Your task to perform on an android device: Open internet settings Image 0: 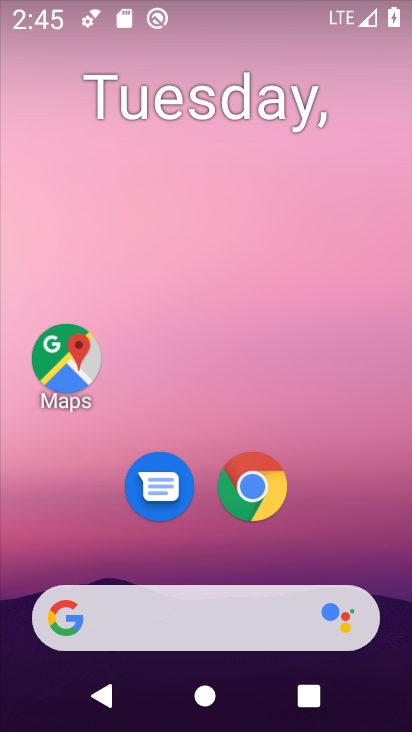
Step 0: press home button
Your task to perform on an android device: Open internet settings Image 1: 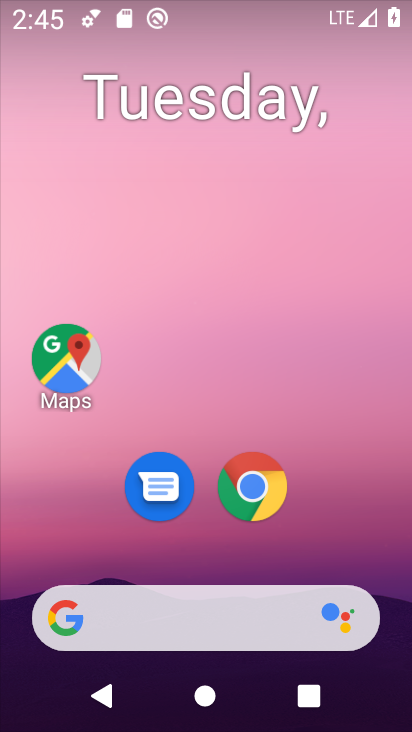
Step 1: drag from (369, 536) to (353, 116)
Your task to perform on an android device: Open internet settings Image 2: 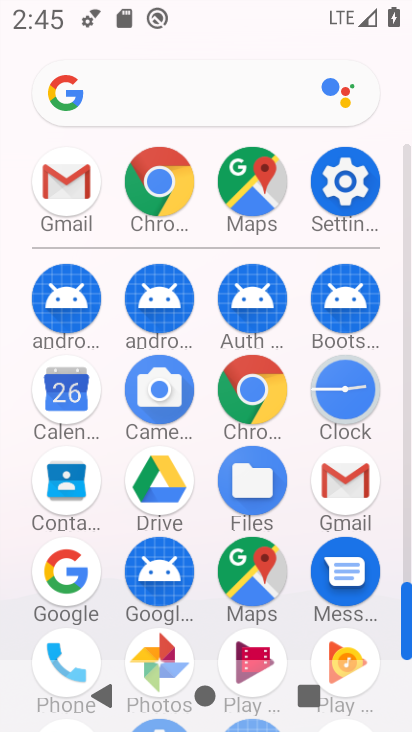
Step 2: click (350, 188)
Your task to perform on an android device: Open internet settings Image 3: 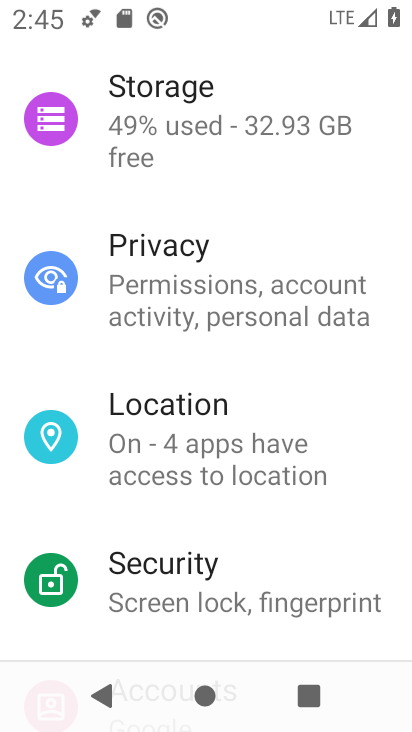
Step 3: drag from (337, 502) to (333, 349)
Your task to perform on an android device: Open internet settings Image 4: 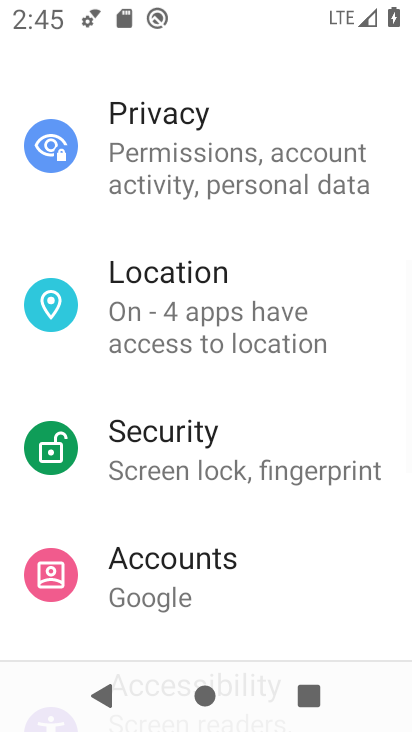
Step 4: drag from (335, 527) to (335, 398)
Your task to perform on an android device: Open internet settings Image 5: 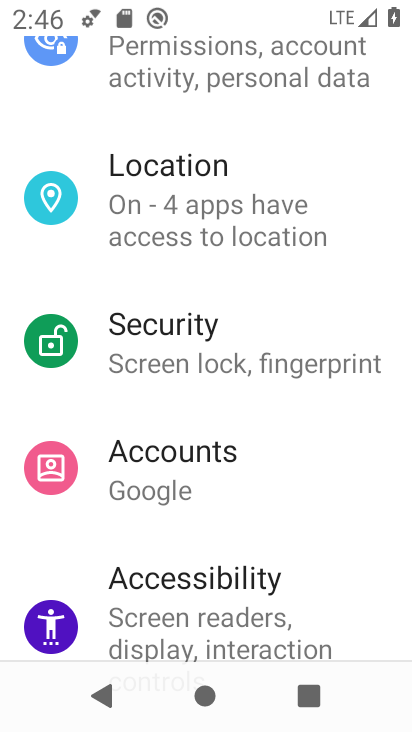
Step 5: drag from (331, 554) to (331, 456)
Your task to perform on an android device: Open internet settings Image 6: 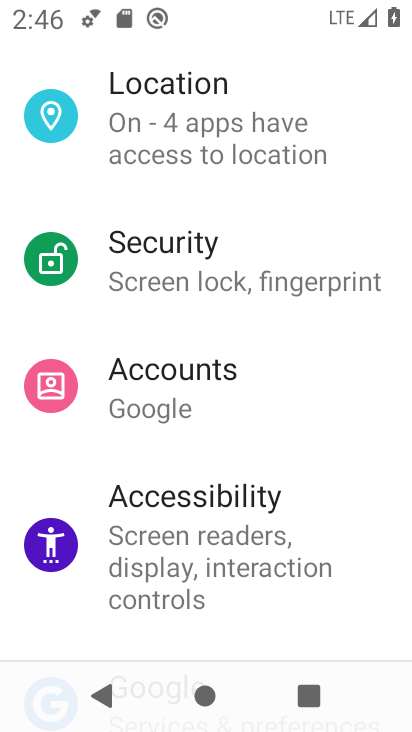
Step 6: drag from (331, 577) to (332, 482)
Your task to perform on an android device: Open internet settings Image 7: 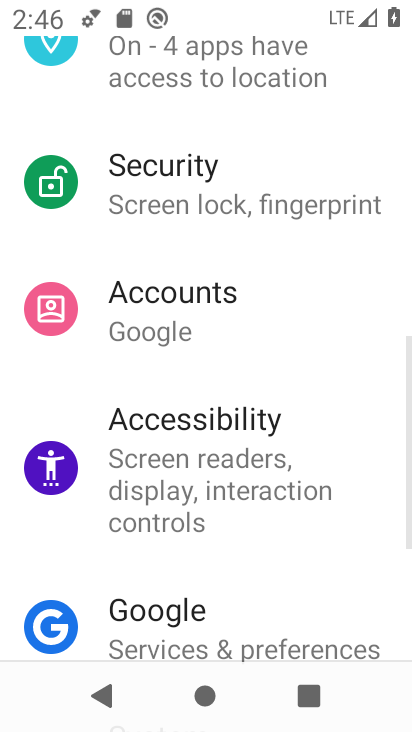
Step 7: drag from (325, 586) to (327, 499)
Your task to perform on an android device: Open internet settings Image 8: 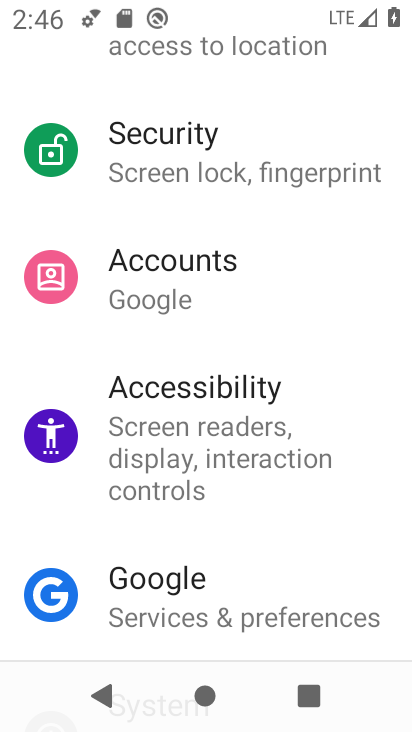
Step 8: drag from (324, 574) to (320, 448)
Your task to perform on an android device: Open internet settings Image 9: 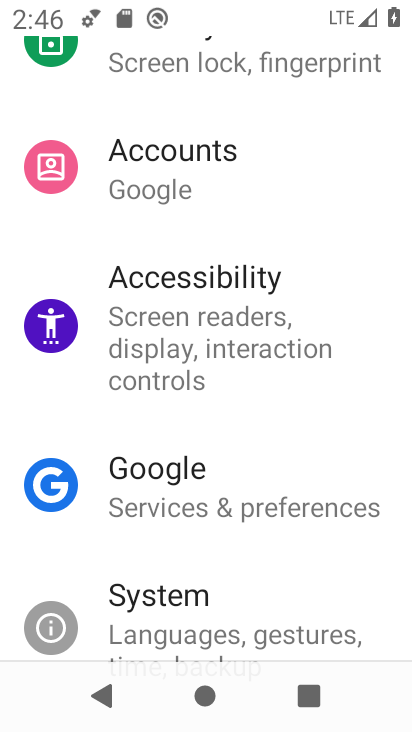
Step 9: drag from (336, 228) to (347, 372)
Your task to perform on an android device: Open internet settings Image 10: 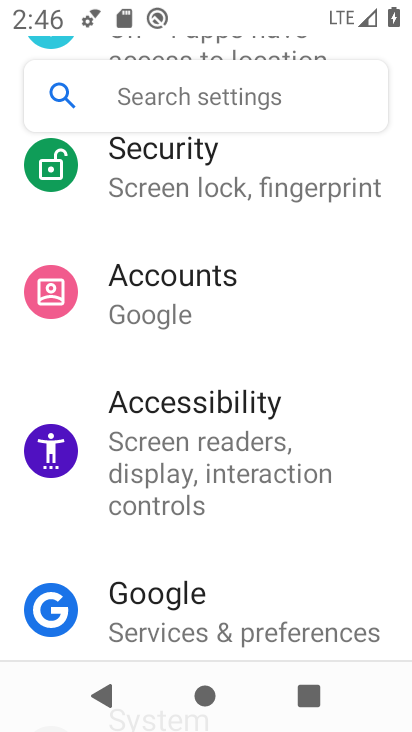
Step 10: drag from (361, 242) to (367, 358)
Your task to perform on an android device: Open internet settings Image 11: 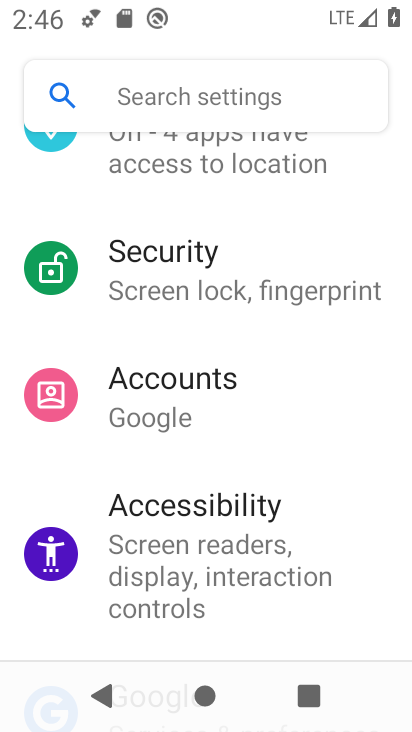
Step 11: drag from (367, 210) to (376, 362)
Your task to perform on an android device: Open internet settings Image 12: 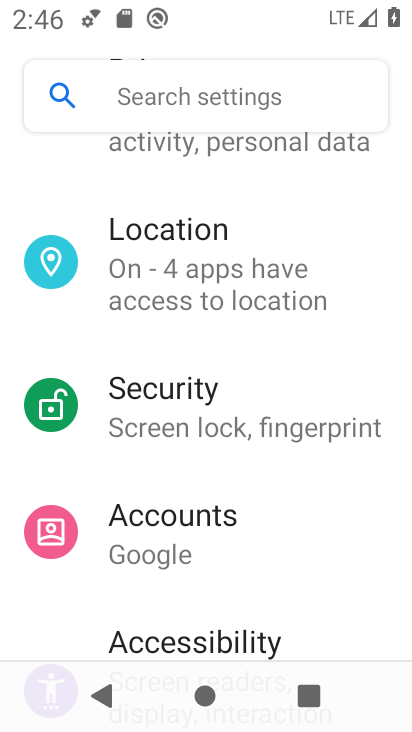
Step 12: drag from (361, 208) to (361, 368)
Your task to perform on an android device: Open internet settings Image 13: 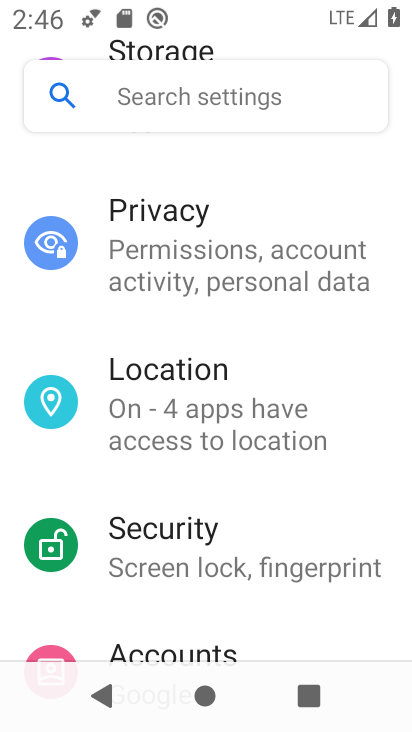
Step 13: drag from (371, 208) to (371, 345)
Your task to perform on an android device: Open internet settings Image 14: 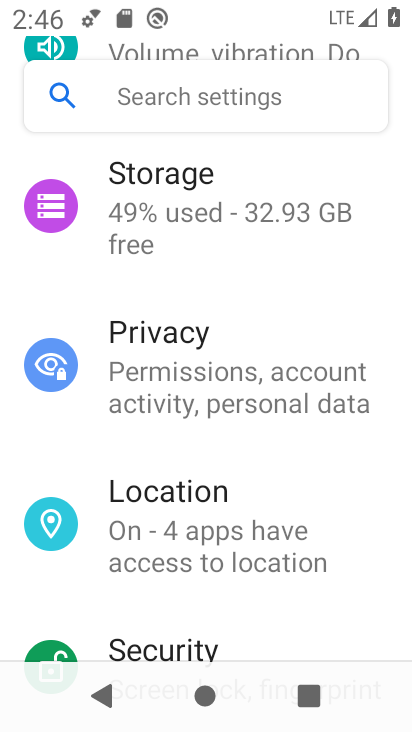
Step 14: drag from (363, 182) to (368, 366)
Your task to perform on an android device: Open internet settings Image 15: 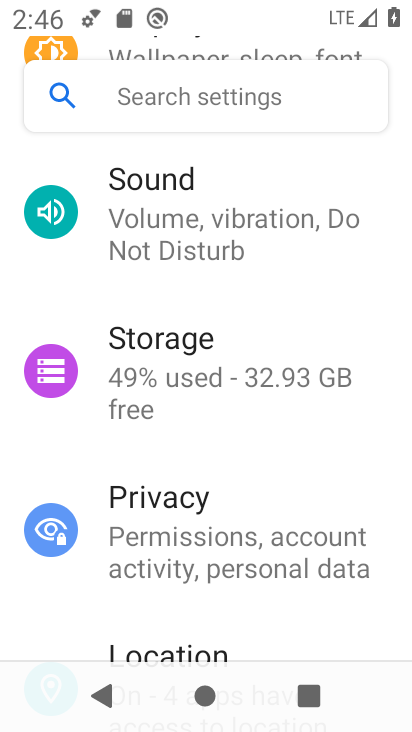
Step 15: drag from (352, 185) to (362, 354)
Your task to perform on an android device: Open internet settings Image 16: 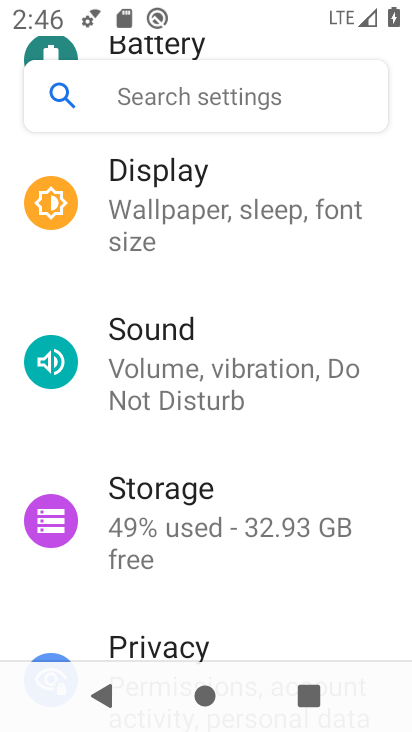
Step 16: drag from (364, 163) to (366, 370)
Your task to perform on an android device: Open internet settings Image 17: 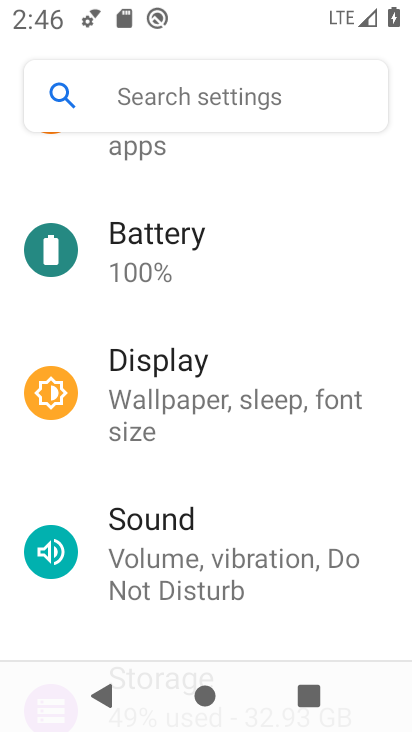
Step 17: drag from (338, 216) to (361, 371)
Your task to perform on an android device: Open internet settings Image 18: 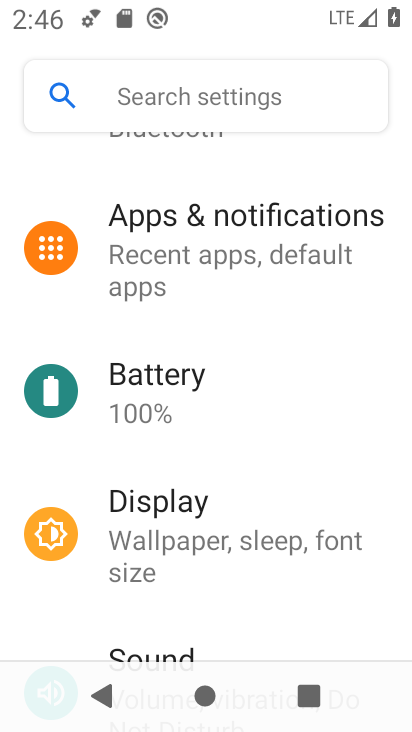
Step 18: drag from (340, 167) to (348, 356)
Your task to perform on an android device: Open internet settings Image 19: 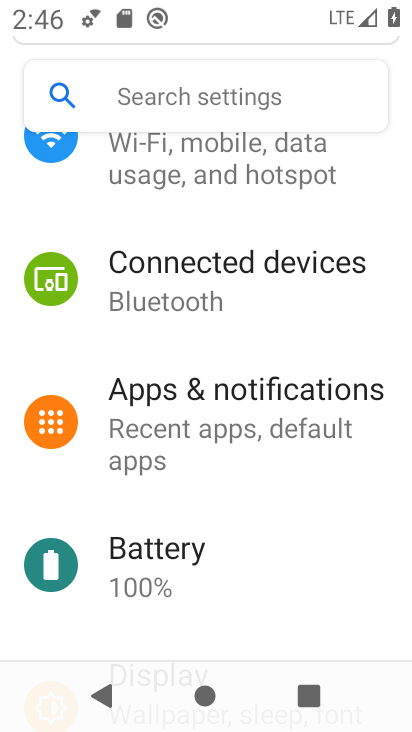
Step 19: drag from (366, 167) to (362, 310)
Your task to perform on an android device: Open internet settings Image 20: 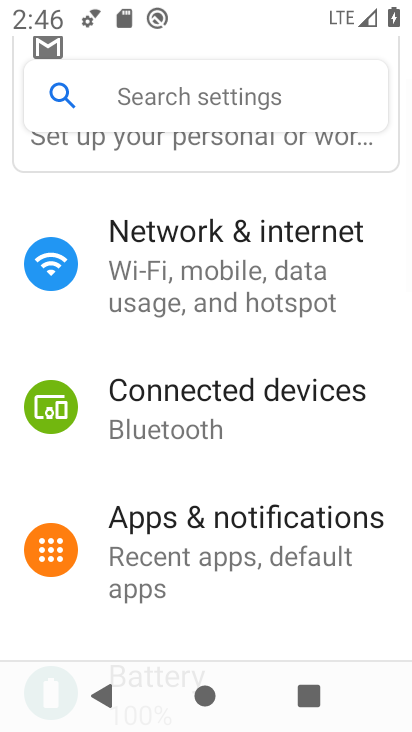
Step 20: click (267, 264)
Your task to perform on an android device: Open internet settings Image 21: 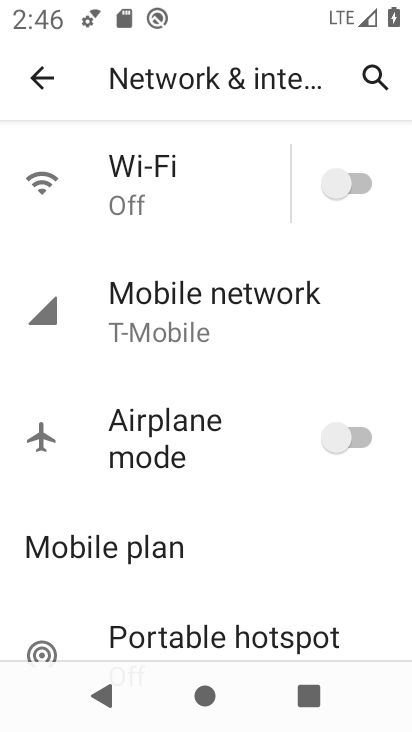
Step 21: task complete